Your task to perform on an android device: turn on priority inbox in the gmail app Image 0: 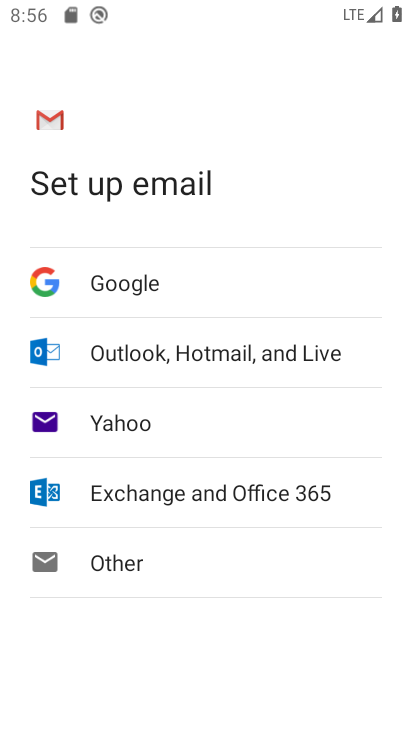
Step 0: press home button
Your task to perform on an android device: turn on priority inbox in the gmail app Image 1: 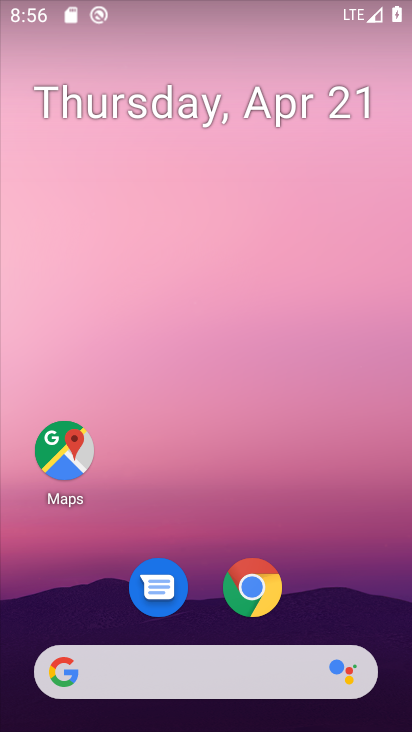
Step 1: drag from (394, 267) to (395, 212)
Your task to perform on an android device: turn on priority inbox in the gmail app Image 2: 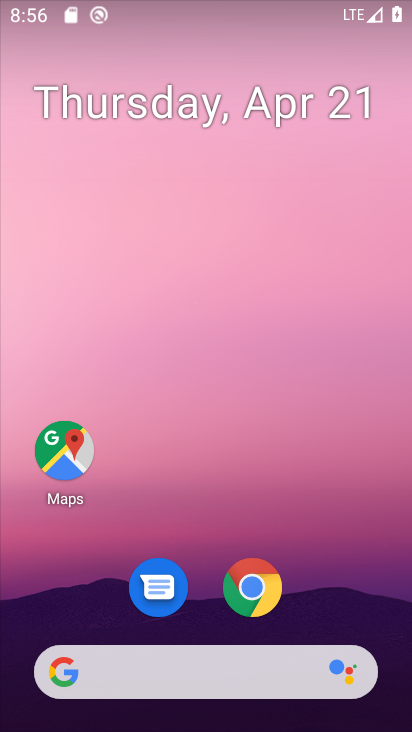
Step 2: drag from (372, 331) to (366, 227)
Your task to perform on an android device: turn on priority inbox in the gmail app Image 3: 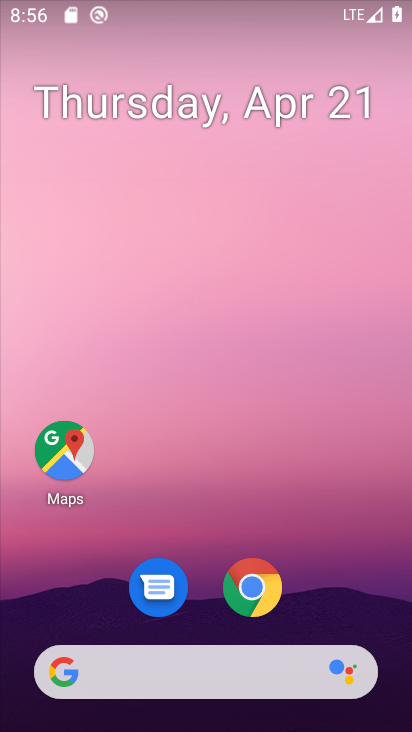
Step 3: drag from (389, 641) to (375, 276)
Your task to perform on an android device: turn on priority inbox in the gmail app Image 4: 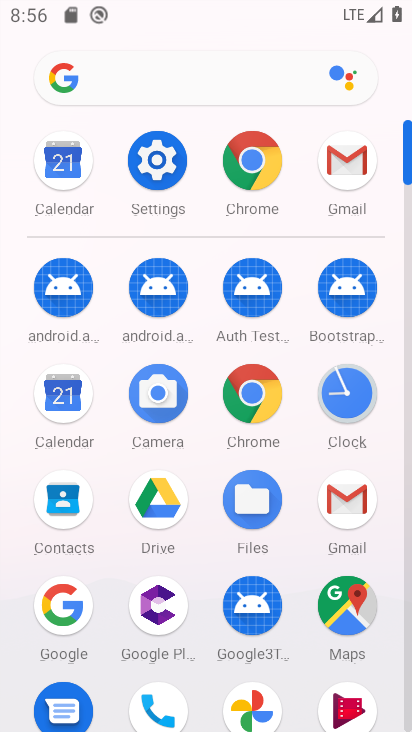
Step 4: click (333, 501)
Your task to perform on an android device: turn on priority inbox in the gmail app Image 5: 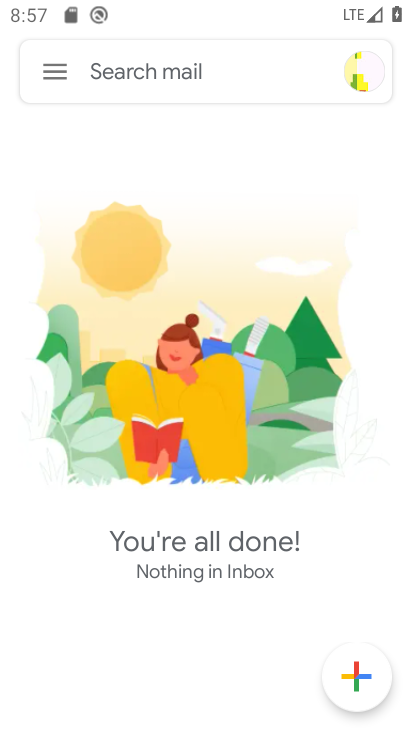
Step 5: click (57, 70)
Your task to perform on an android device: turn on priority inbox in the gmail app Image 6: 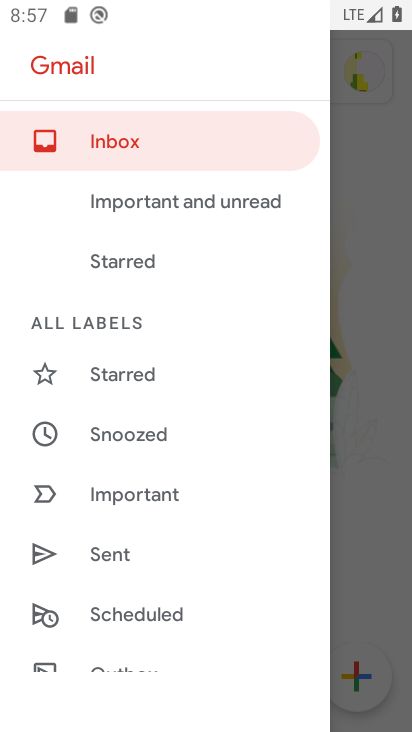
Step 6: drag from (261, 649) to (258, 349)
Your task to perform on an android device: turn on priority inbox in the gmail app Image 7: 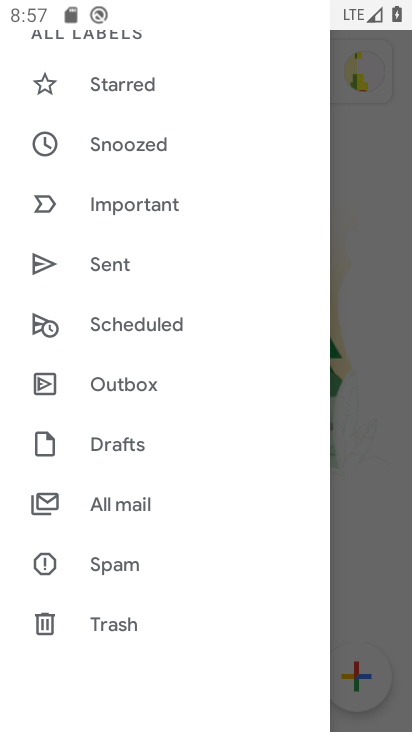
Step 7: drag from (261, 588) to (263, 282)
Your task to perform on an android device: turn on priority inbox in the gmail app Image 8: 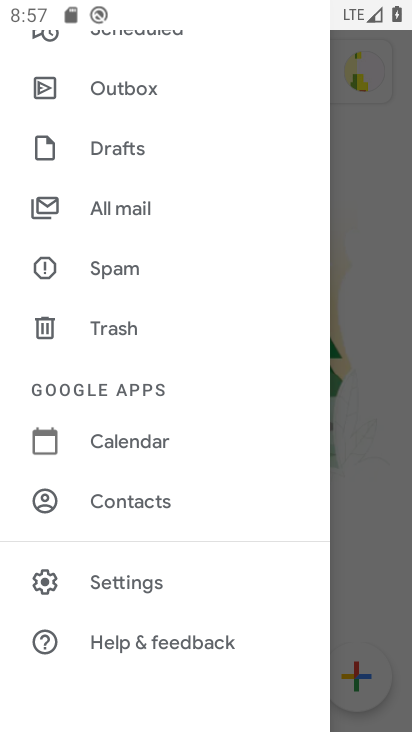
Step 8: click (106, 579)
Your task to perform on an android device: turn on priority inbox in the gmail app Image 9: 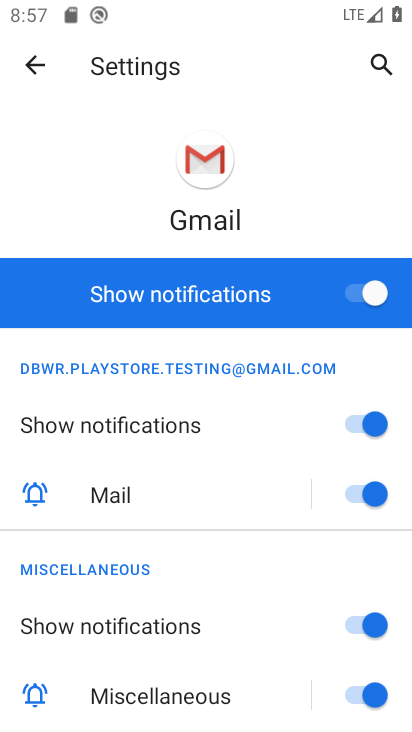
Step 9: click (25, 62)
Your task to perform on an android device: turn on priority inbox in the gmail app Image 10: 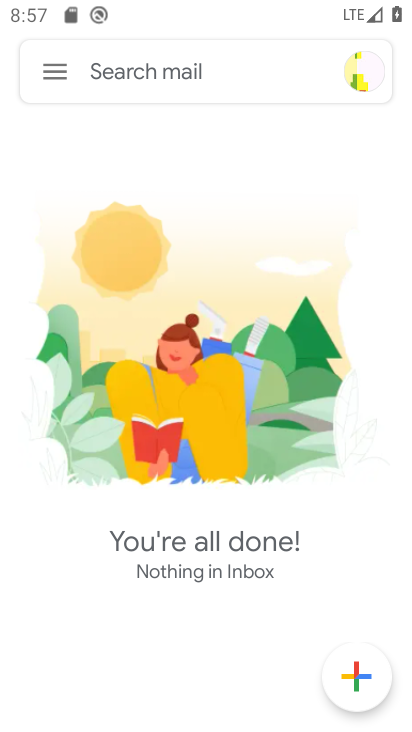
Step 10: click (62, 75)
Your task to perform on an android device: turn on priority inbox in the gmail app Image 11: 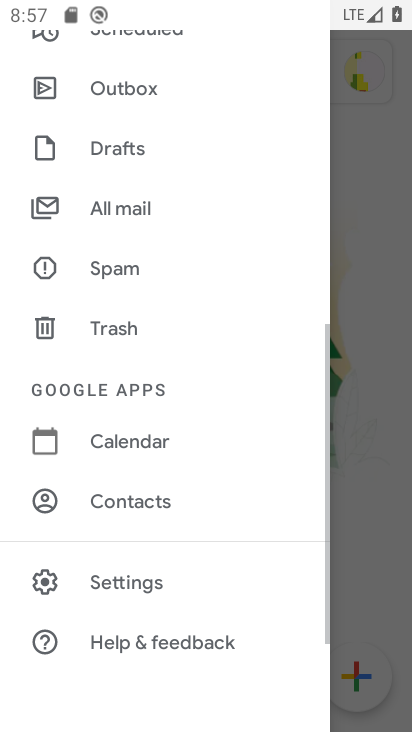
Step 11: click (119, 576)
Your task to perform on an android device: turn on priority inbox in the gmail app Image 12: 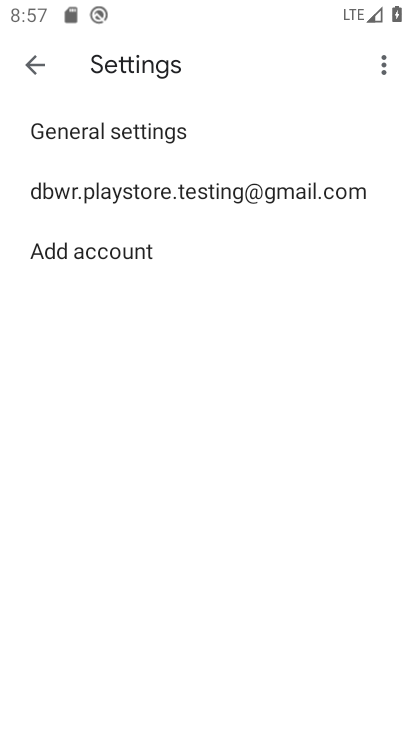
Step 12: click (100, 185)
Your task to perform on an android device: turn on priority inbox in the gmail app Image 13: 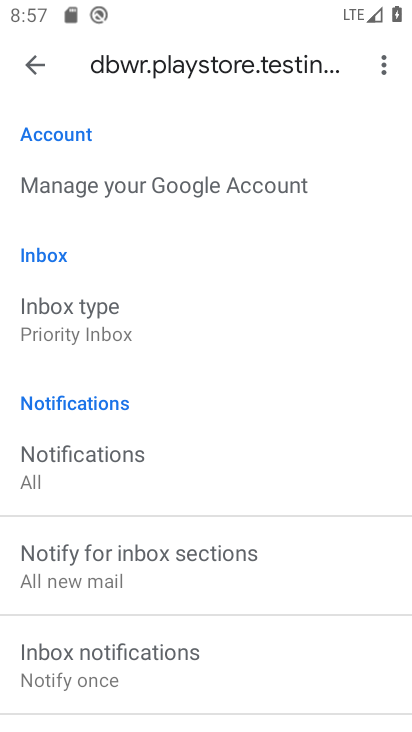
Step 13: click (88, 318)
Your task to perform on an android device: turn on priority inbox in the gmail app Image 14: 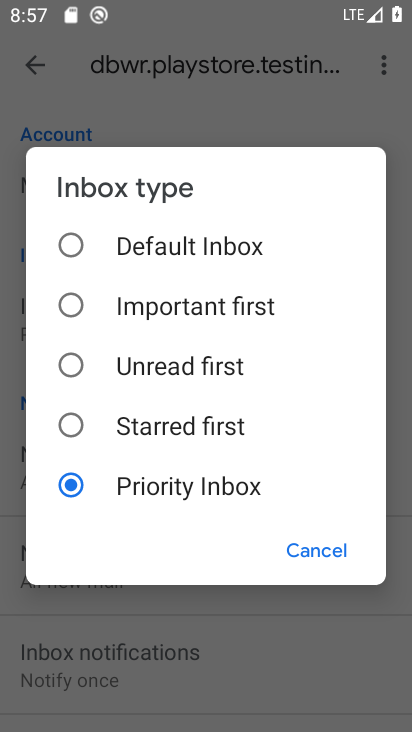
Step 14: task complete